Your task to perform on an android device: uninstall "PUBG MOBILE" Image 0: 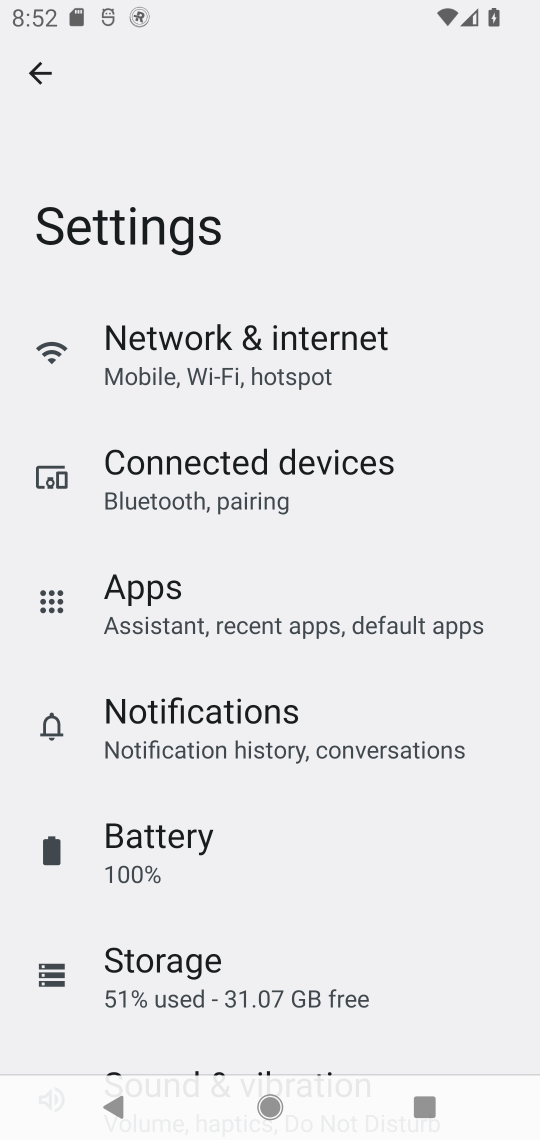
Step 0: press home button
Your task to perform on an android device: uninstall "PUBG MOBILE" Image 1: 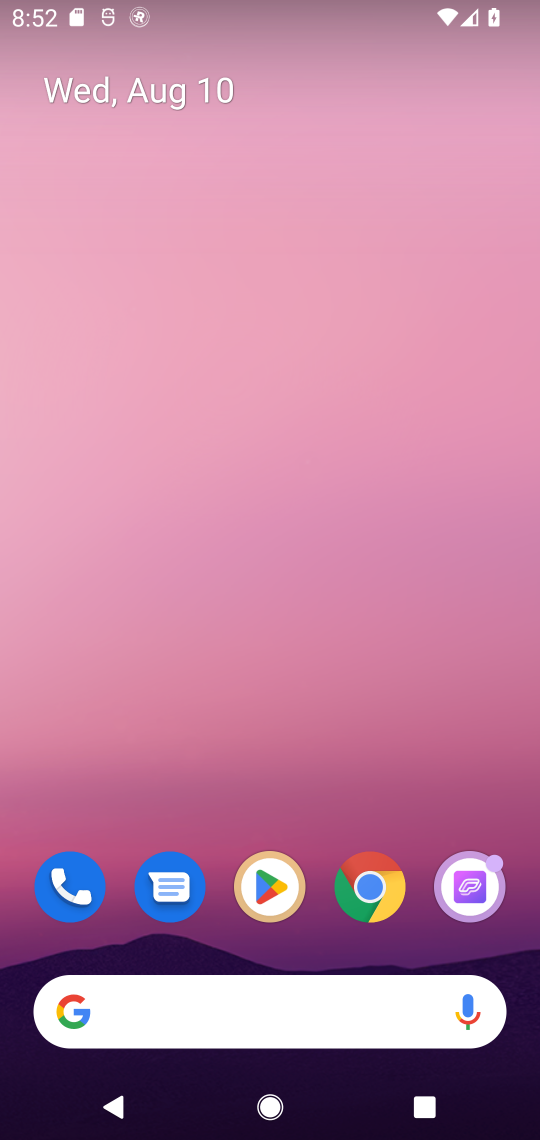
Step 1: click (272, 897)
Your task to perform on an android device: uninstall "PUBG MOBILE" Image 2: 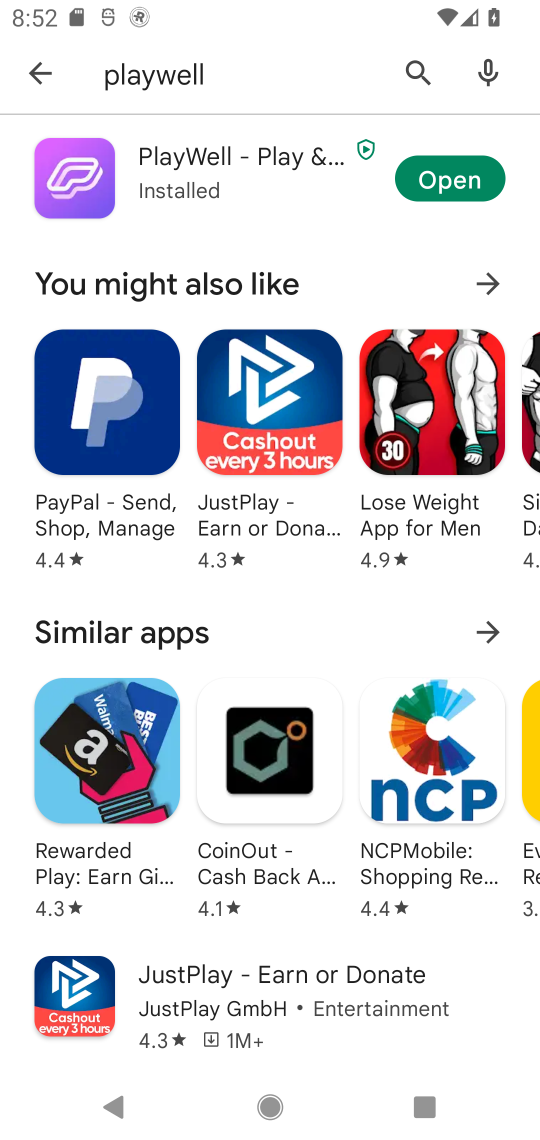
Step 2: click (412, 63)
Your task to perform on an android device: uninstall "PUBG MOBILE" Image 3: 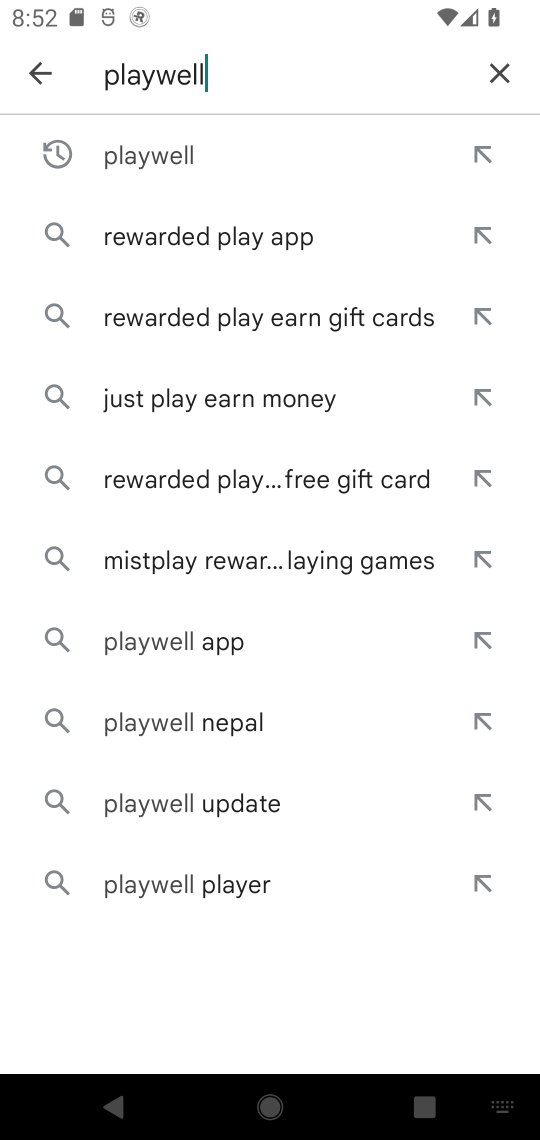
Step 3: click (502, 93)
Your task to perform on an android device: uninstall "PUBG MOBILE" Image 4: 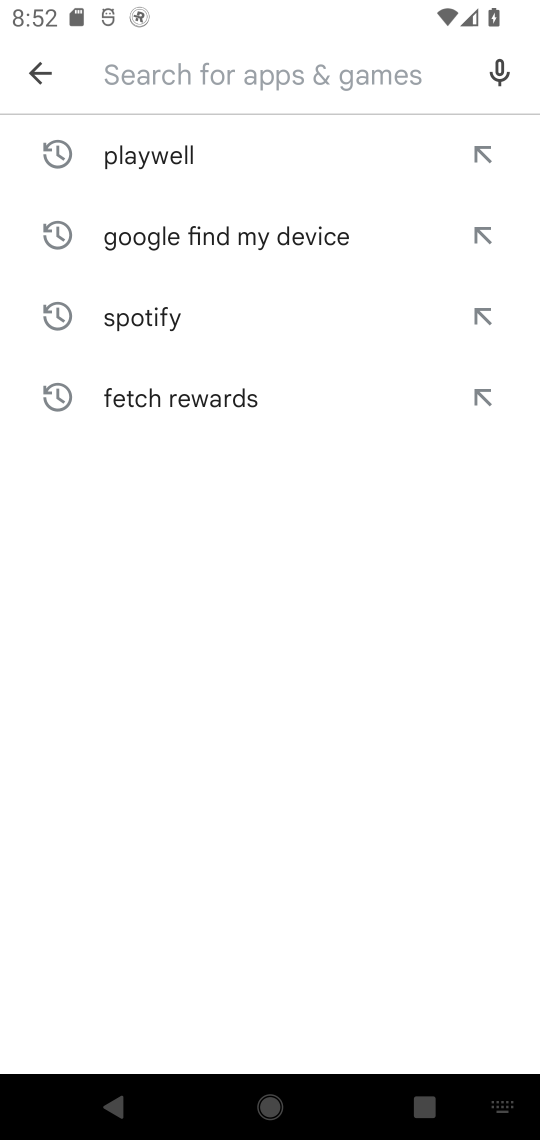
Step 4: type "pubg"
Your task to perform on an android device: uninstall "PUBG MOBILE" Image 5: 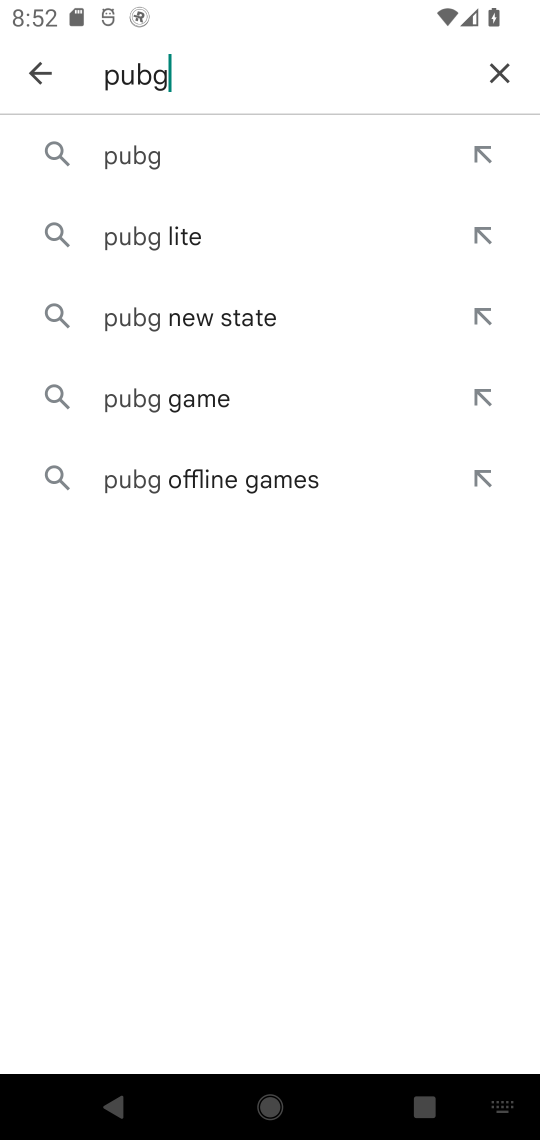
Step 5: type " mobile"
Your task to perform on an android device: uninstall "PUBG MOBILE" Image 6: 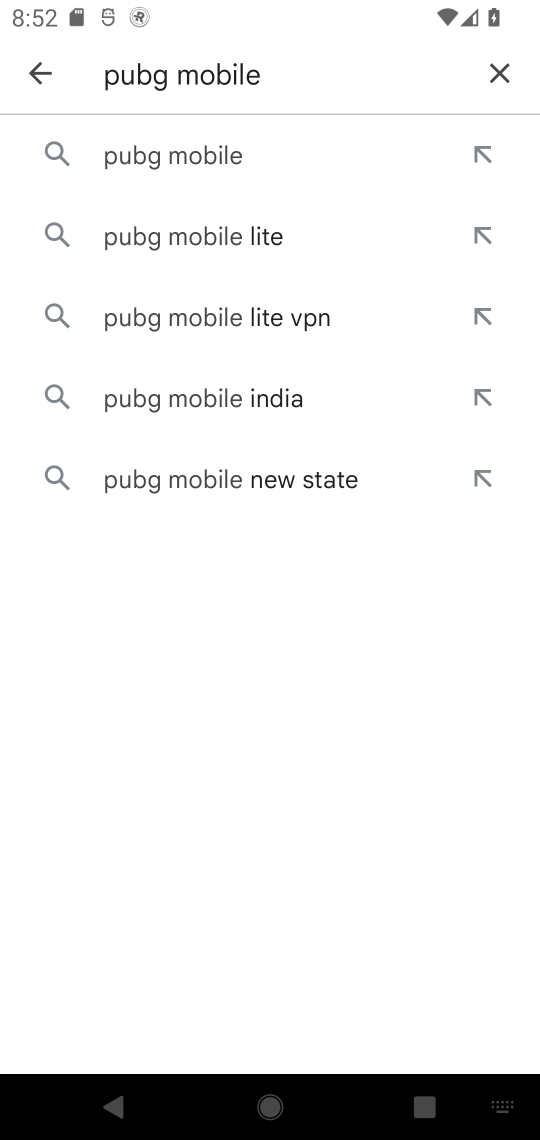
Step 6: click (310, 159)
Your task to perform on an android device: uninstall "PUBG MOBILE" Image 7: 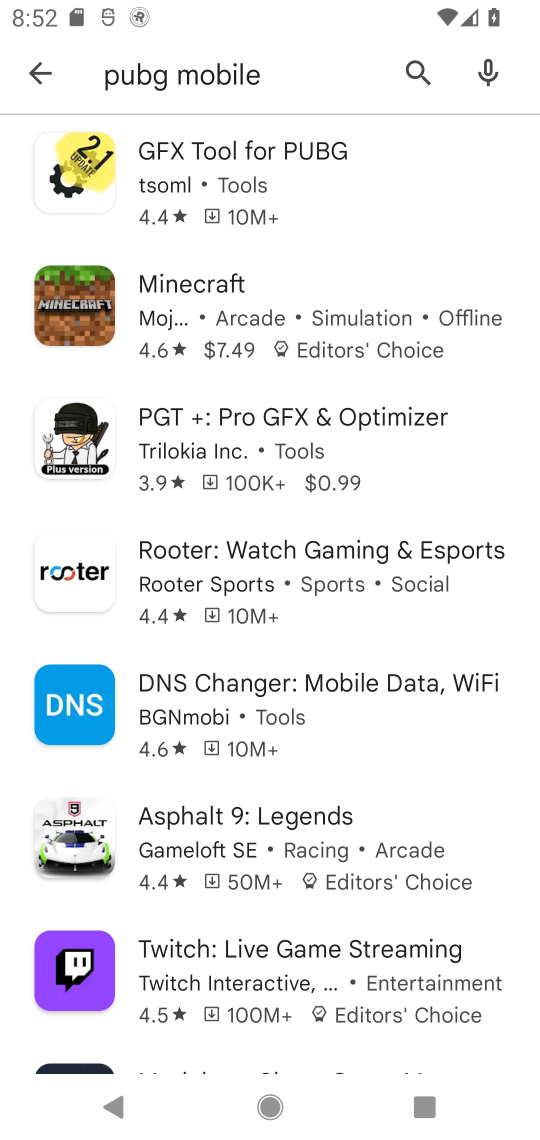
Step 7: task complete